Your task to perform on an android device: Go to Wikipedia Image 0: 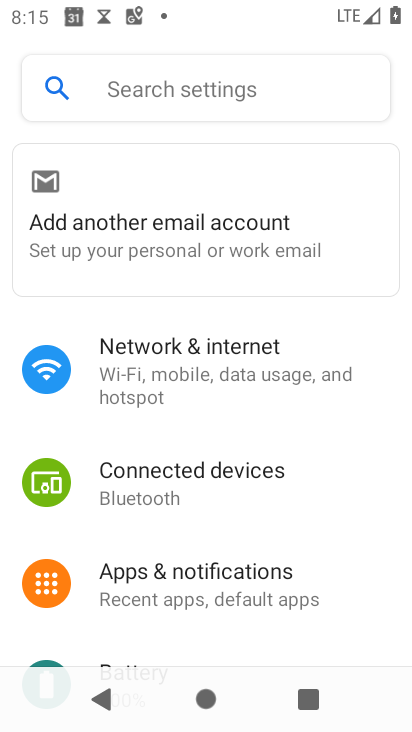
Step 0: press home button
Your task to perform on an android device: Go to Wikipedia Image 1: 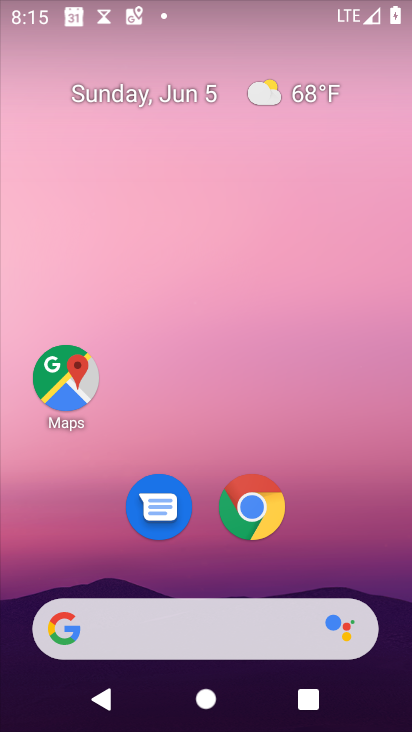
Step 1: click (282, 521)
Your task to perform on an android device: Go to Wikipedia Image 2: 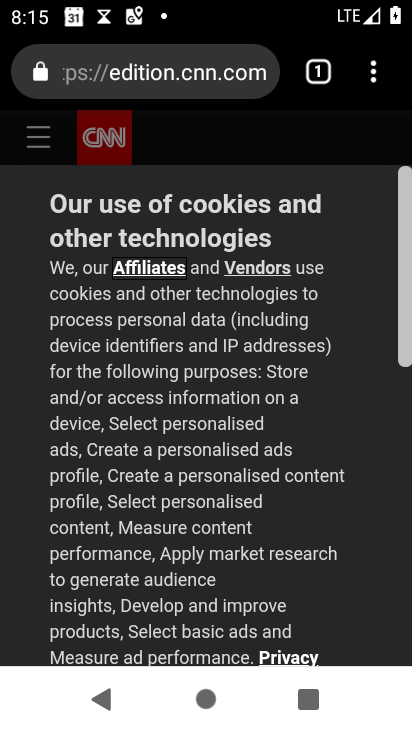
Step 2: click (161, 75)
Your task to perform on an android device: Go to Wikipedia Image 3: 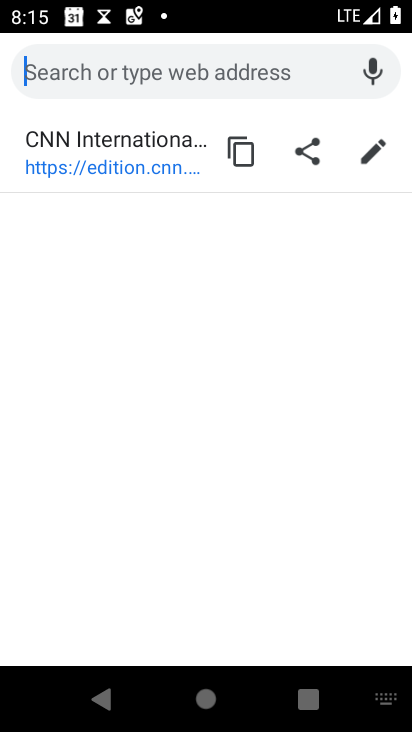
Step 3: type "wikipedia"
Your task to perform on an android device: Go to Wikipedia Image 4: 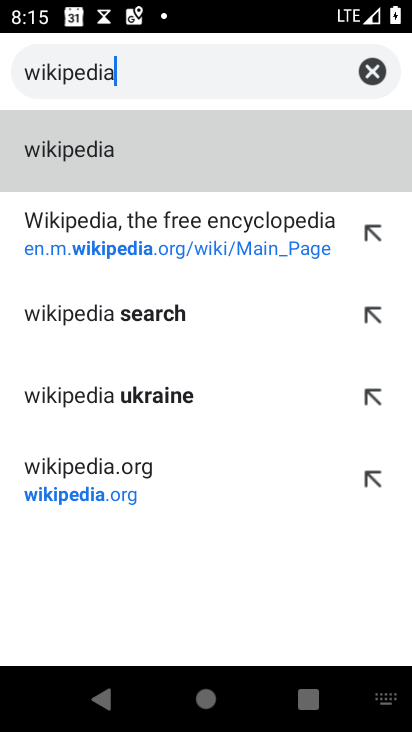
Step 4: click (95, 249)
Your task to perform on an android device: Go to Wikipedia Image 5: 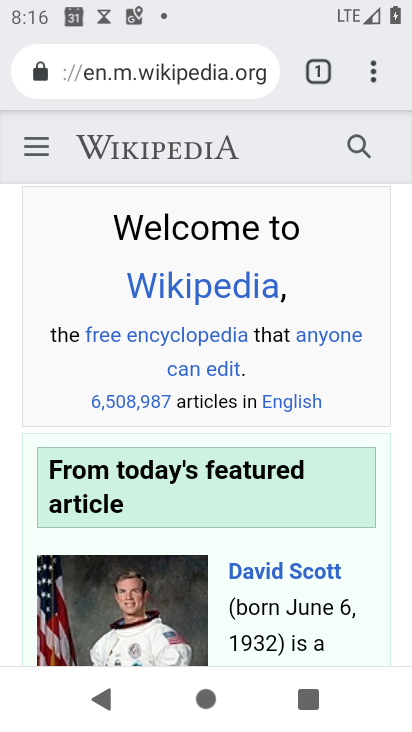
Step 5: task complete